Your task to perform on an android device: Open the Play Movies app and select the watchlist tab. Image 0: 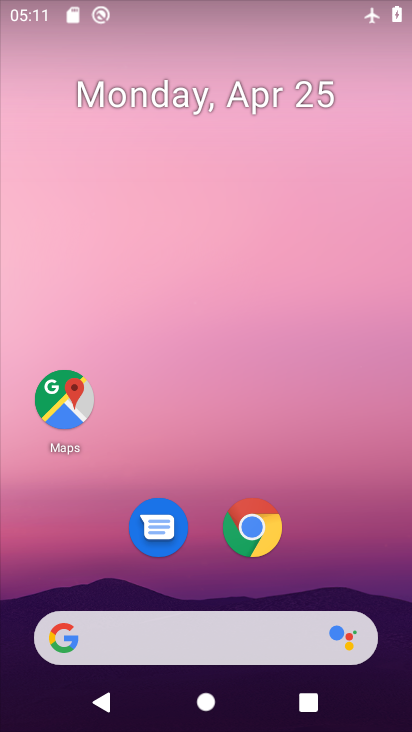
Step 0: drag from (385, 622) to (316, 201)
Your task to perform on an android device: Open the Play Movies app and select the watchlist tab. Image 1: 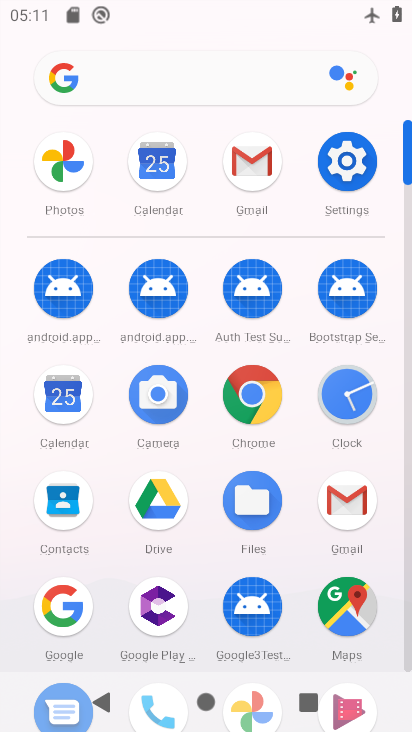
Step 1: click (406, 660)
Your task to perform on an android device: Open the Play Movies app and select the watchlist tab. Image 2: 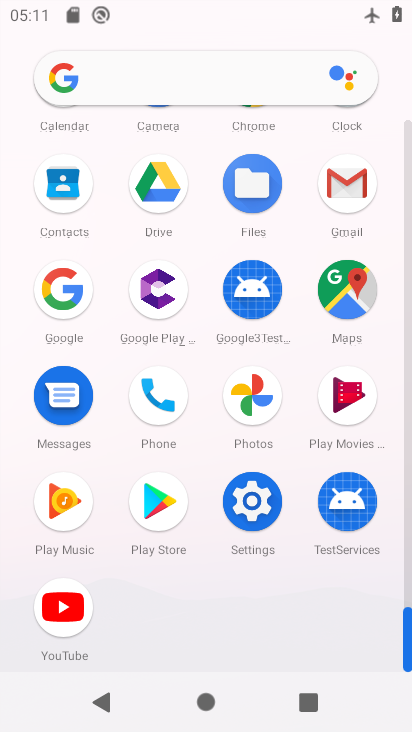
Step 2: click (350, 392)
Your task to perform on an android device: Open the Play Movies app and select the watchlist tab. Image 3: 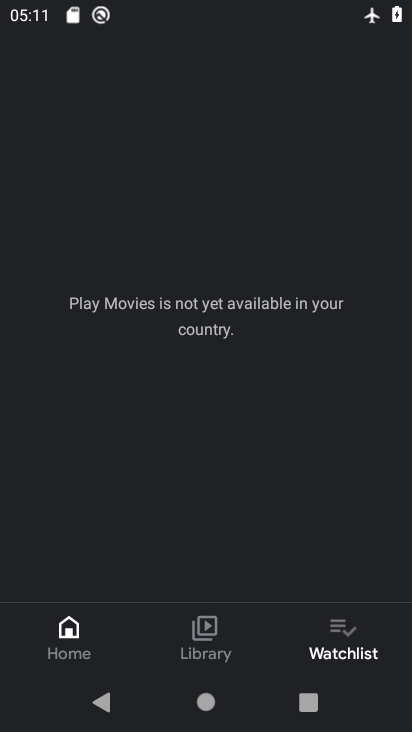
Step 3: click (340, 628)
Your task to perform on an android device: Open the Play Movies app and select the watchlist tab. Image 4: 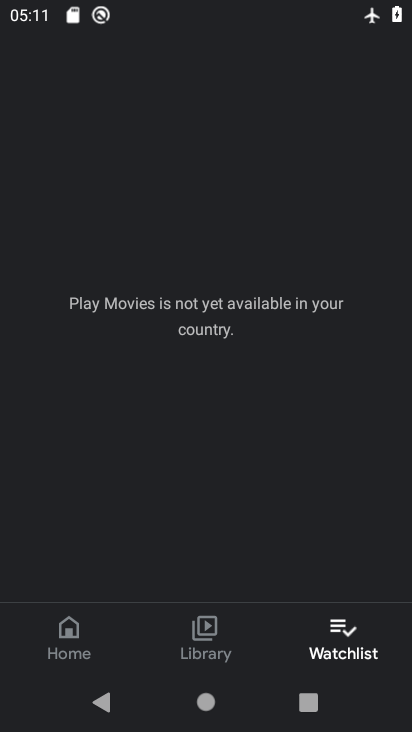
Step 4: task complete